Your task to perform on an android device: add a label to a message in the gmail app Image 0: 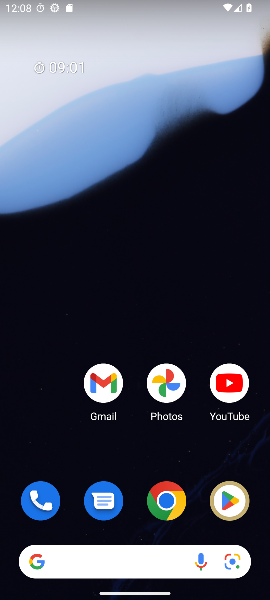
Step 0: click (101, 388)
Your task to perform on an android device: add a label to a message in the gmail app Image 1: 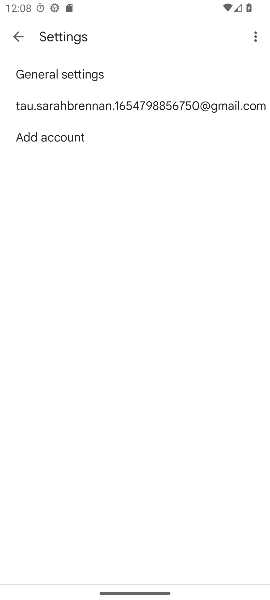
Step 1: click (75, 101)
Your task to perform on an android device: add a label to a message in the gmail app Image 2: 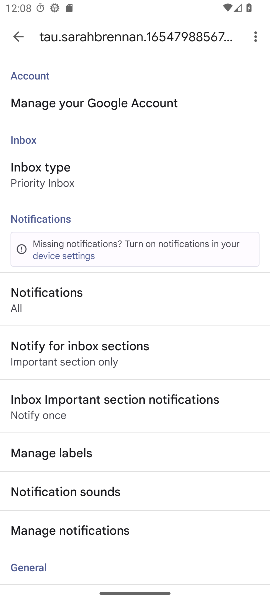
Step 2: click (16, 30)
Your task to perform on an android device: add a label to a message in the gmail app Image 3: 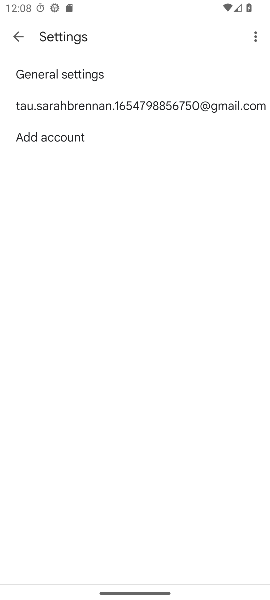
Step 3: click (16, 30)
Your task to perform on an android device: add a label to a message in the gmail app Image 4: 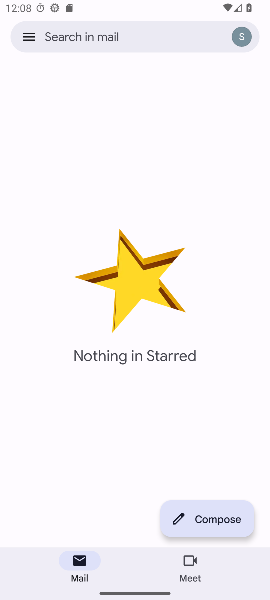
Step 4: click (21, 43)
Your task to perform on an android device: add a label to a message in the gmail app Image 5: 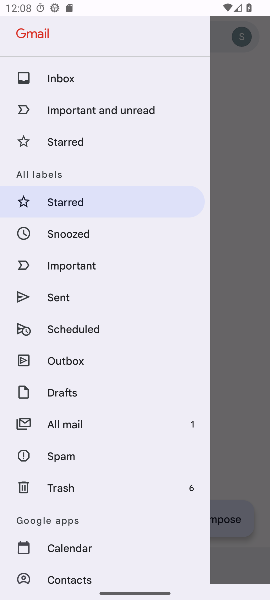
Step 5: click (80, 428)
Your task to perform on an android device: add a label to a message in the gmail app Image 6: 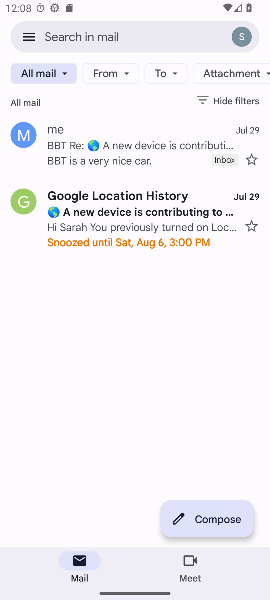
Step 6: click (134, 198)
Your task to perform on an android device: add a label to a message in the gmail app Image 7: 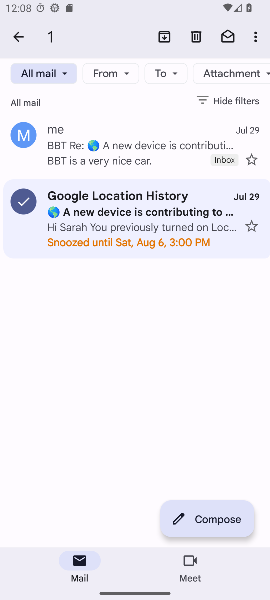
Step 7: click (255, 35)
Your task to perform on an android device: add a label to a message in the gmail app Image 8: 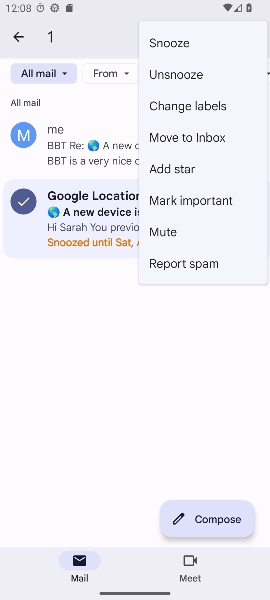
Step 8: click (201, 105)
Your task to perform on an android device: add a label to a message in the gmail app Image 9: 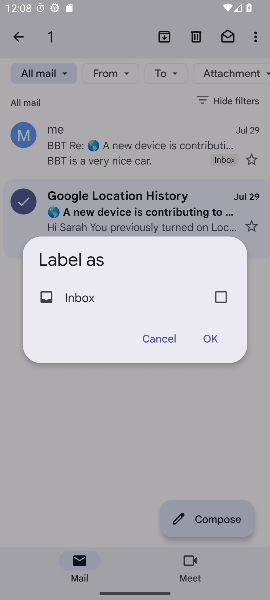
Step 9: click (223, 297)
Your task to perform on an android device: add a label to a message in the gmail app Image 10: 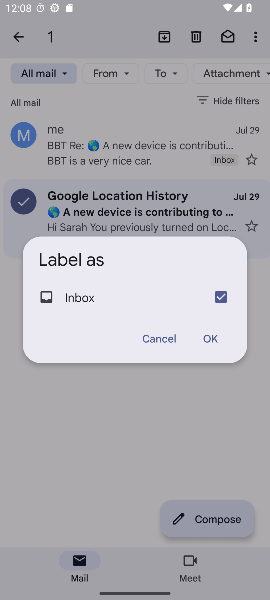
Step 10: click (203, 344)
Your task to perform on an android device: add a label to a message in the gmail app Image 11: 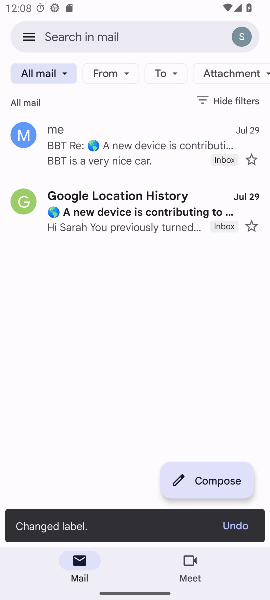
Step 11: task complete